Your task to perform on an android device: change notifications settings Image 0: 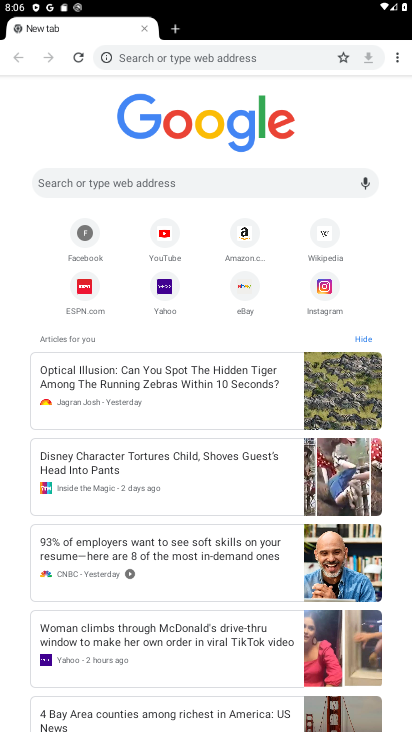
Step 0: press home button
Your task to perform on an android device: change notifications settings Image 1: 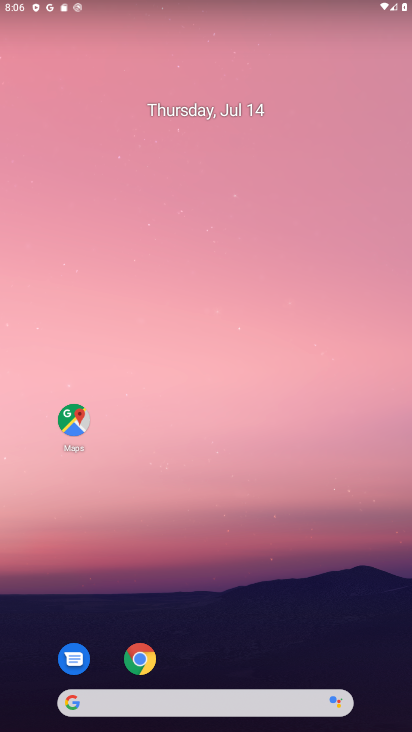
Step 1: drag from (220, 478) to (145, 0)
Your task to perform on an android device: change notifications settings Image 2: 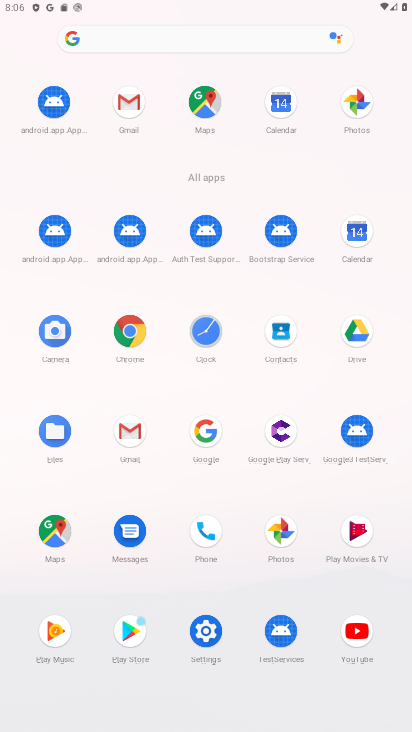
Step 2: click (204, 633)
Your task to perform on an android device: change notifications settings Image 3: 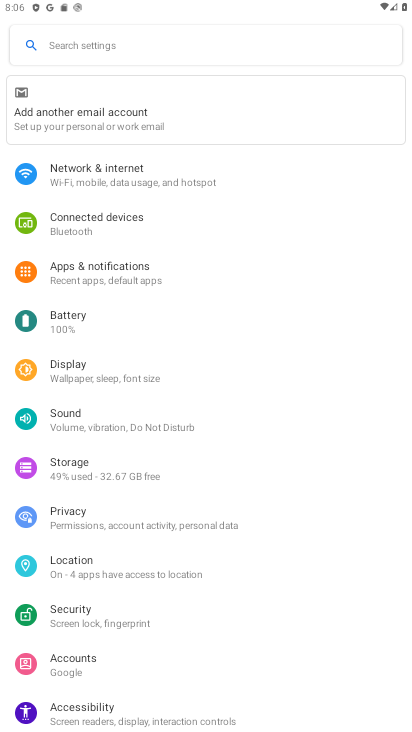
Step 3: click (74, 260)
Your task to perform on an android device: change notifications settings Image 4: 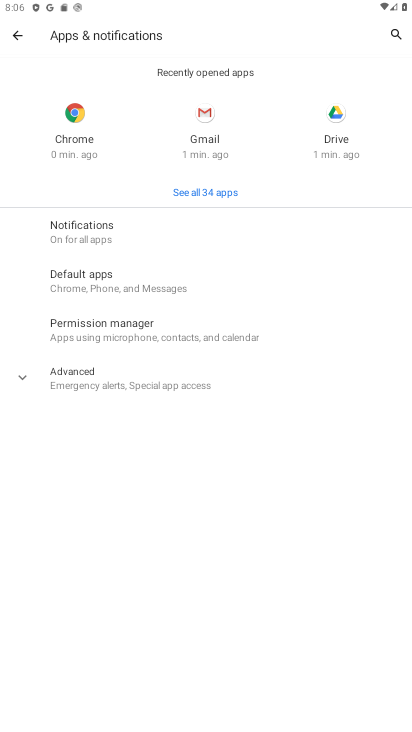
Step 4: click (89, 235)
Your task to perform on an android device: change notifications settings Image 5: 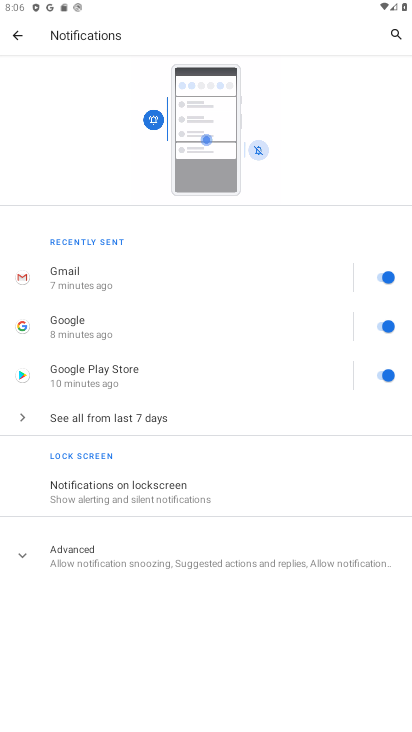
Step 5: click (193, 498)
Your task to perform on an android device: change notifications settings Image 6: 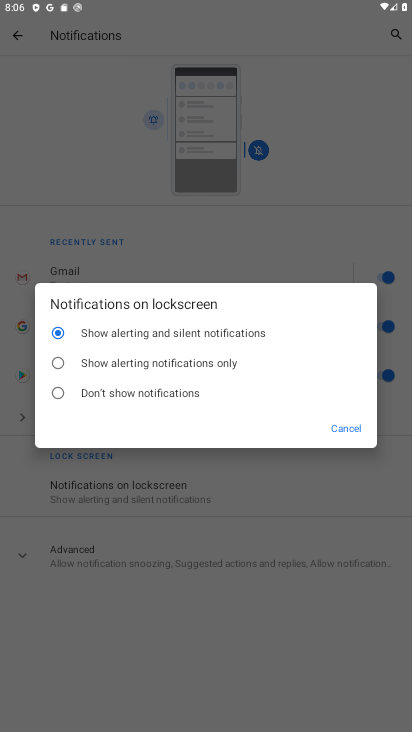
Step 6: click (54, 390)
Your task to perform on an android device: change notifications settings Image 7: 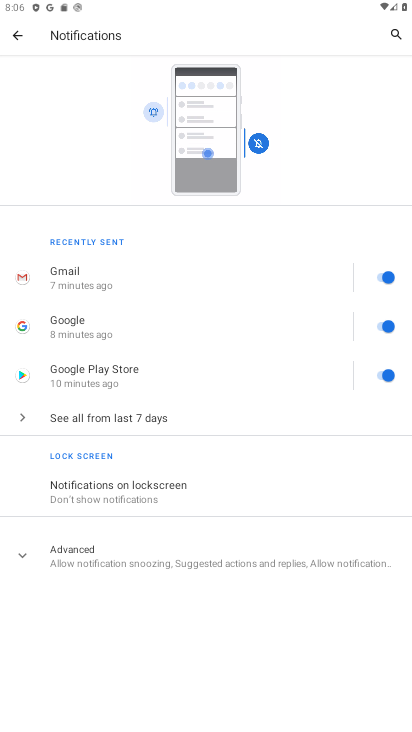
Step 7: task complete